Your task to perform on an android device: turn on translation in the chrome app Image 0: 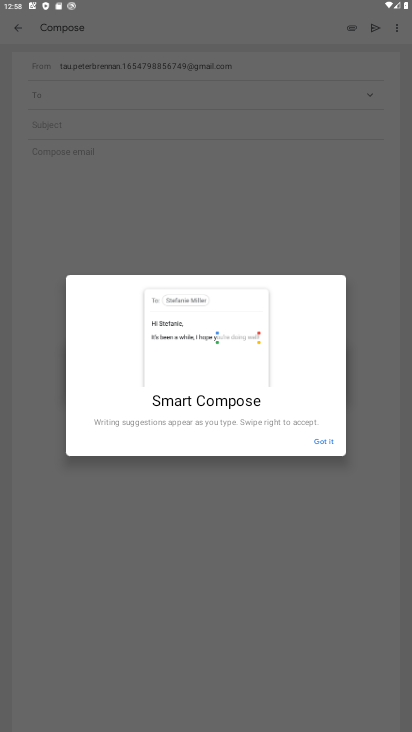
Step 0: press home button
Your task to perform on an android device: turn on translation in the chrome app Image 1: 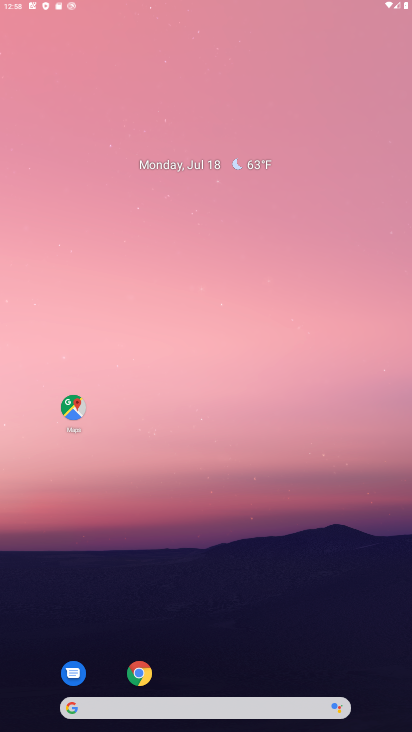
Step 1: drag from (228, 716) to (185, 145)
Your task to perform on an android device: turn on translation in the chrome app Image 2: 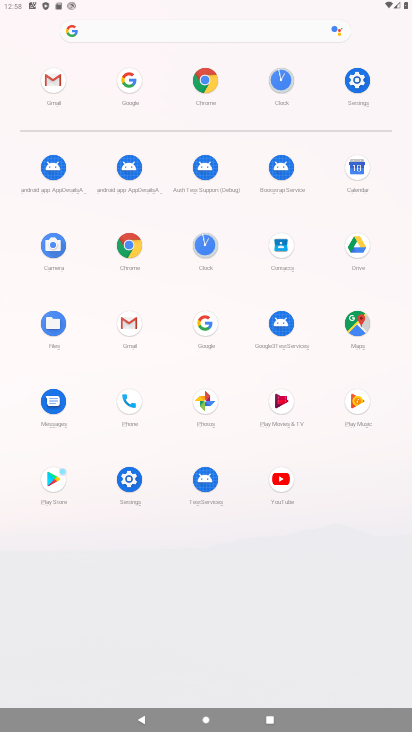
Step 2: click (200, 72)
Your task to perform on an android device: turn on translation in the chrome app Image 3: 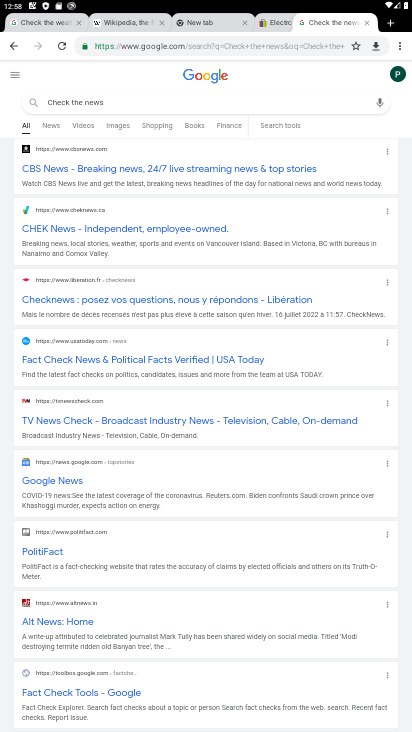
Step 3: click (402, 35)
Your task to perform on an android device: turn on translation in the chrome app Image 4: 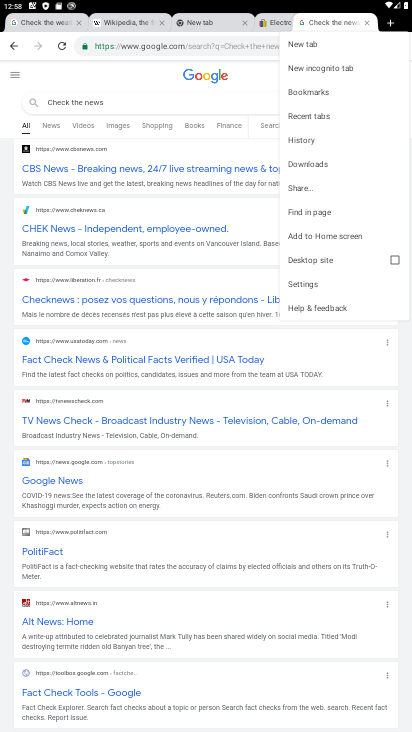
Step 4: click (334, 288)
Your task to perform on an android device: turn on translation in the chrome app Image 5: 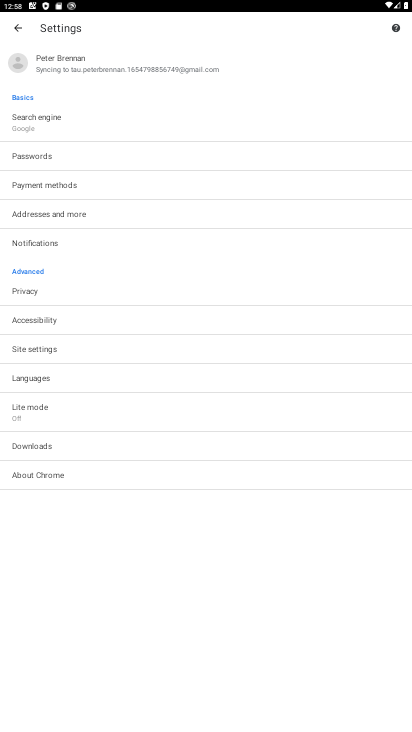
Step 5: click (75, 383)
Your task to perform on an android device: turn on translation in the chrome app Image 6: 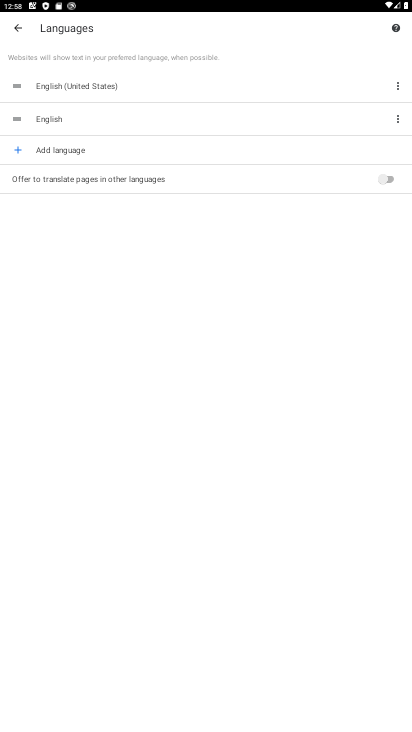
Step 6: click (384, 174)
Your task to perform on an android device: turn on translation in the chrome app Image 7: 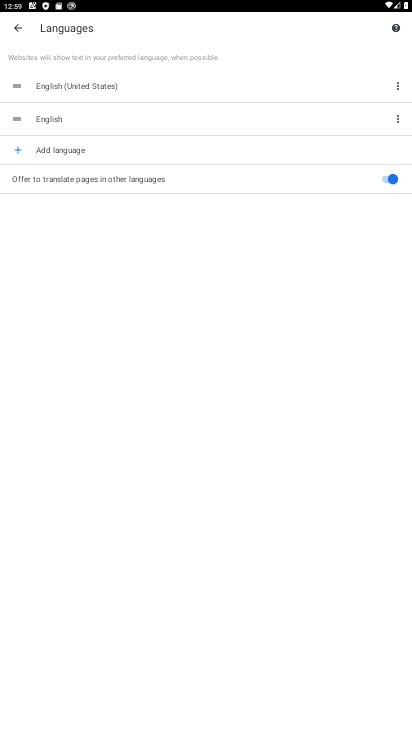
Step 7: task complete